Your task to perform on an android device: Open Google Chrome and click the shortcut for Amazon.com Image 0: 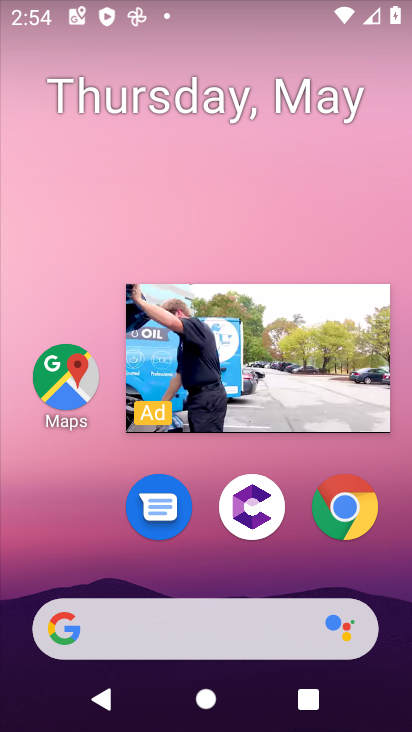
Step 0: click (337, 496)
Your task to perform on an android device: Open Google Chrome and click the shortcut for Amazon.com Image 1: 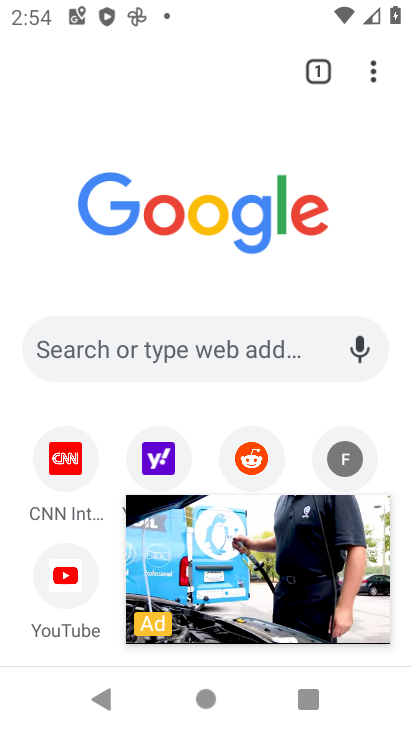
Step 1: click (323, 73)
Your task to perform on an android device: Open Google Chrome and click the shortcut for Amazon.com Image 2: 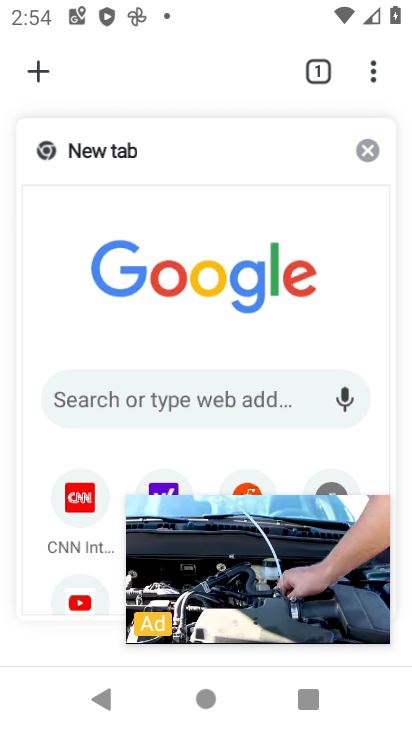
Step 2: click (41, 73)
Your task to perform on an android device: Open Google Chrome and click the shortcut for Amazon.com Image 3: 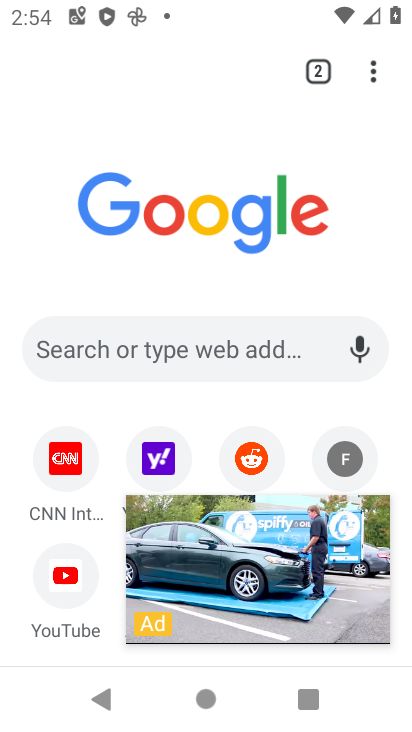
Step 3: click (380, 497)
Your task to perform on an android device: Open Google Chrome and click the shortcut for Amazon.com Image 4: 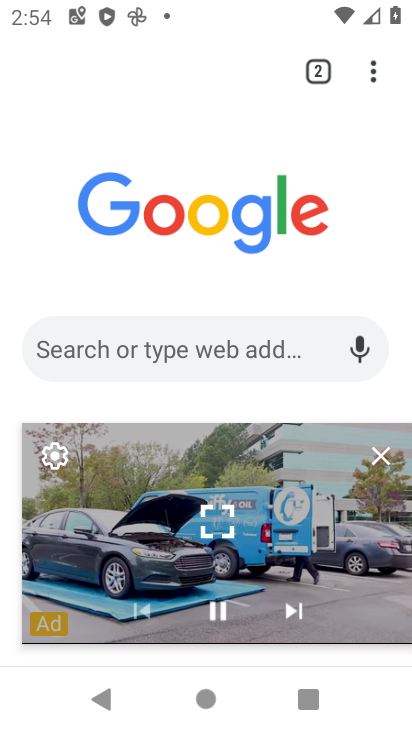
Step 4: click (382, 455)
Your task to perform on an android device: Open Google Chrome and click the shortcut for Amazon.com Image 5: 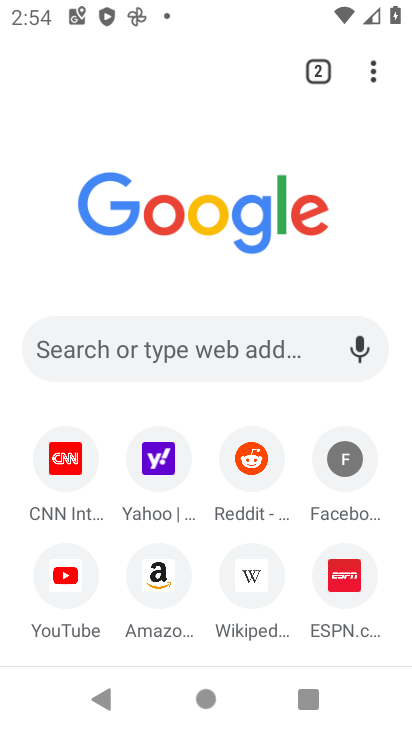
Step 5: click (157, 574)
Your task to perform on an android device: Open Google Chrome and click the shortcut for Amazon.com Image 6: 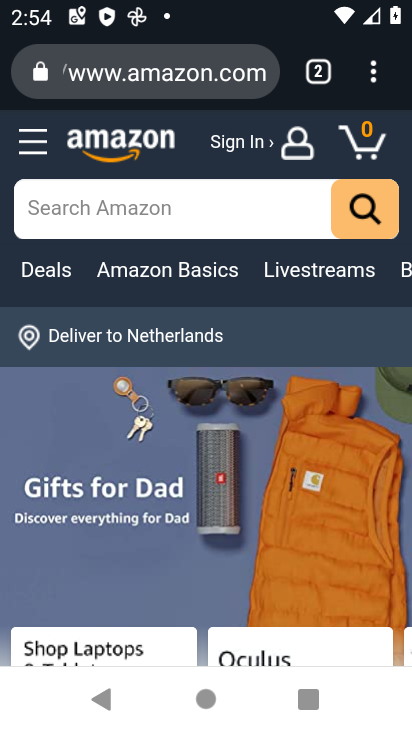
Step 6: task complete